Your task to perform on an android device: turn on wifi Image 0: 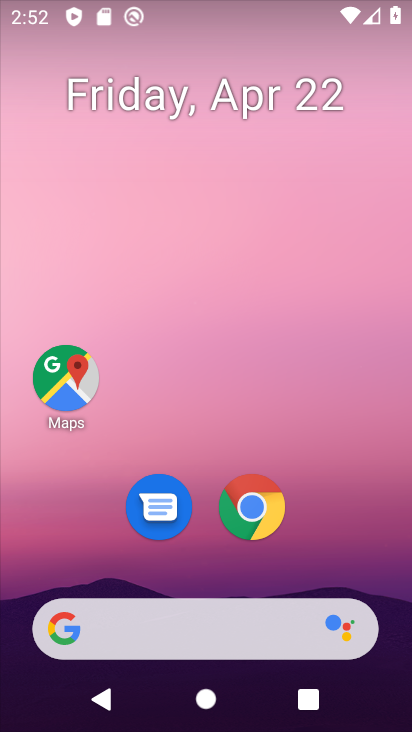
Step 0: drag from (224, 579) to (179, 69)
Your task to perform on an android device: turn on wifi Image 1: 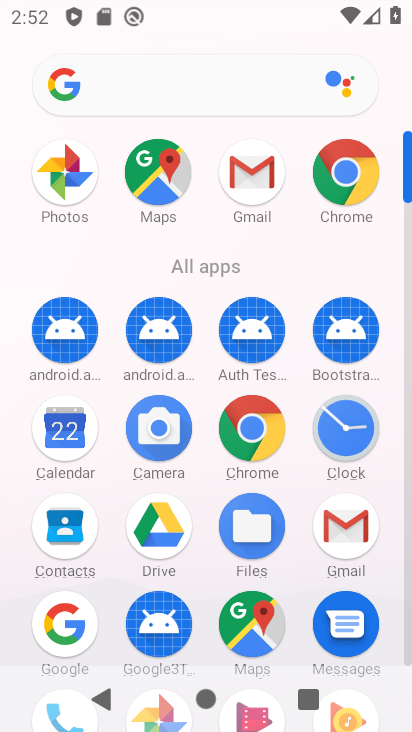
Step 1: drag from (200, 594) to (169, 42)
Your task to perform on an android device: turn on wifi Image 2: 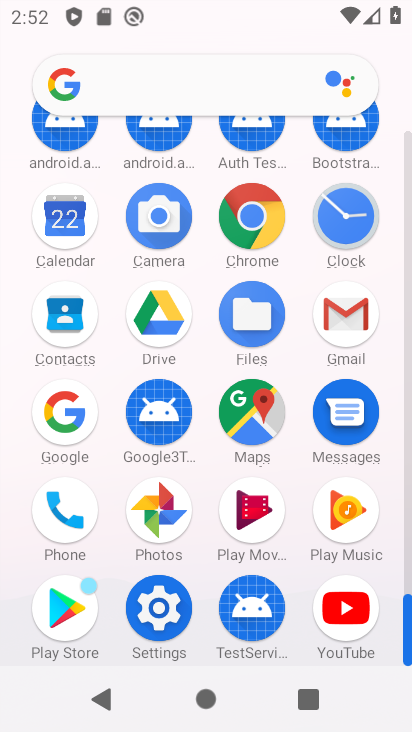
Step 2: click (163, 630)
Your task to perform on an android device: turn on wifi Image 3: 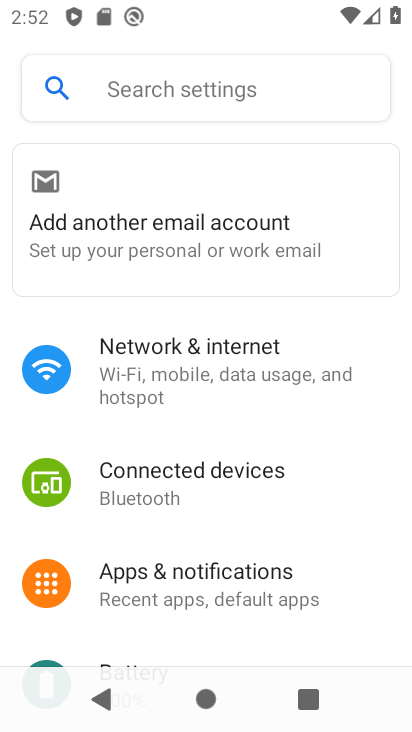
Step 3: click (221, 220)
Your task to perform on an android device: turn on wifi Image 4: 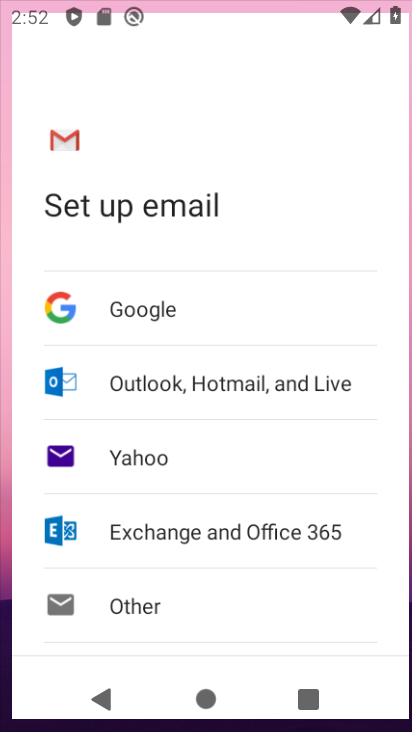
Step 4: click (194, 380)
Your task to perform on an android device: turn on wifi Image 5: 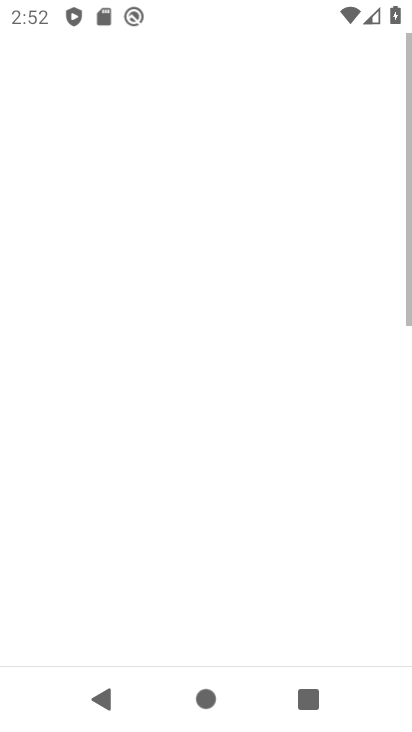
Step 5: press home button
Your task to perform on an android device: turn on wifi Image 6: 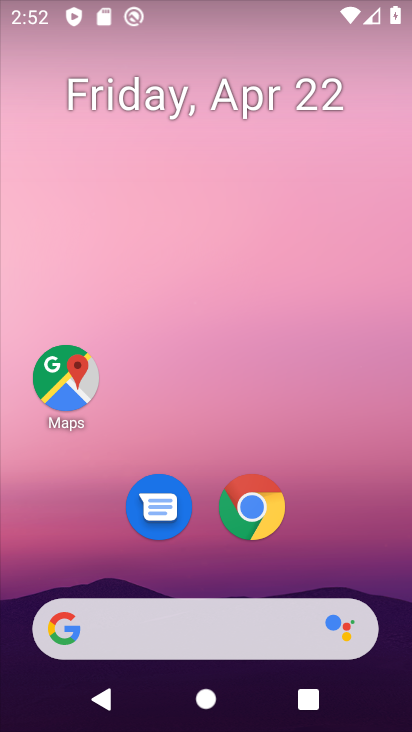
Step 6: drag from (239, 565) to (390, 27)
Your task to perform on an android device: turn on wifi Image 7: 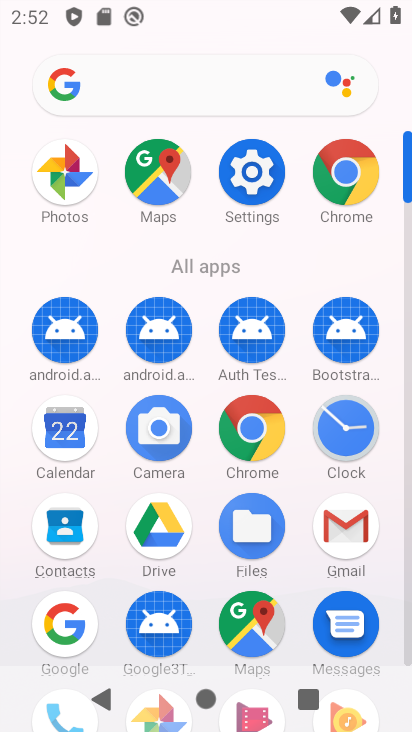
Step 7: click (258, 195)
Your task to perform on an android device: turn on wifi Image 8: 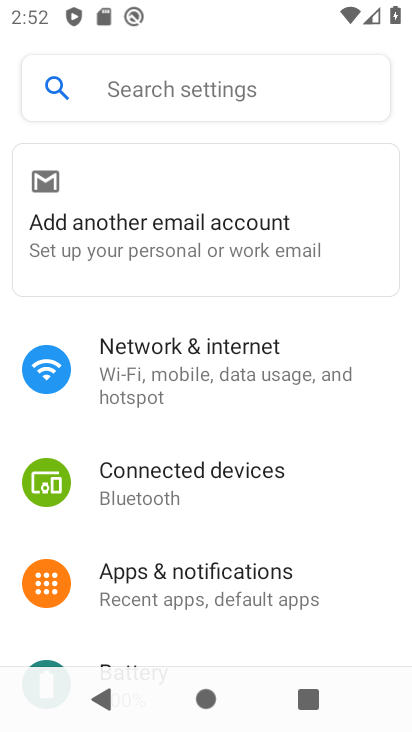
Step 8: click (205, 385)
Your task to perform on an android device: turn on wifi Image 9: 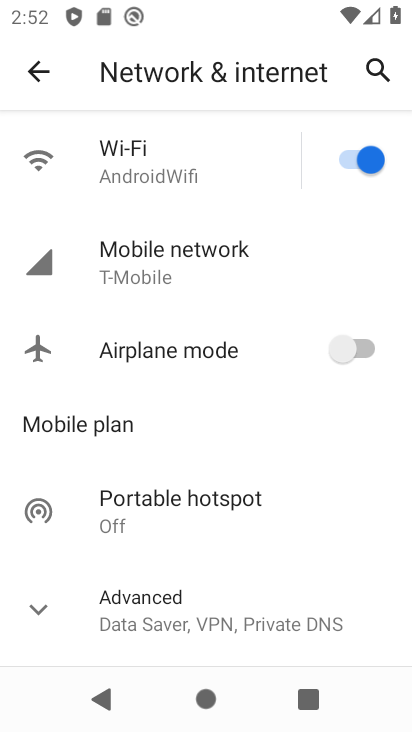
Step 9: click (150, 187)
Your task to perform on an android device: turn on wifi Image 10: 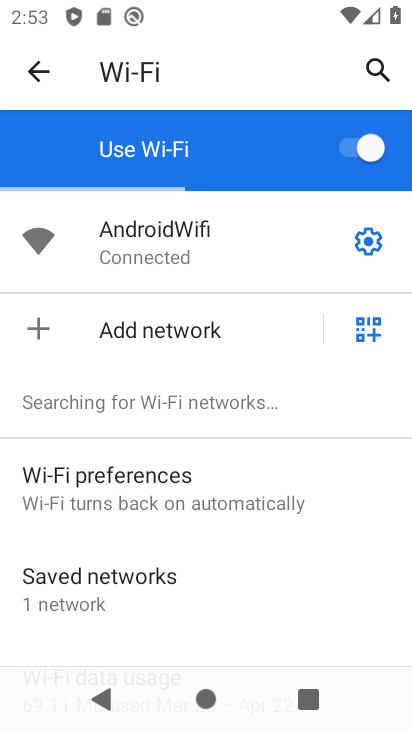
Step 10: task complete